Your task to perform on an android device: Search for sushi restaurants on Maps Image 0: 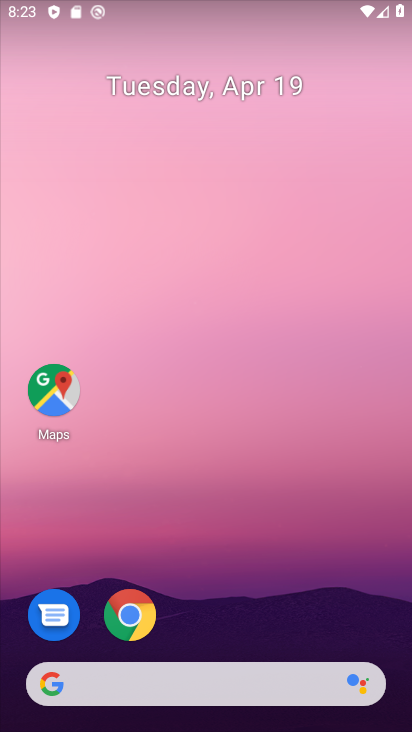
Step 0: click (33, 409)
Your task to perform on an android device: Search for sushi restaurants on Maps Image 1: 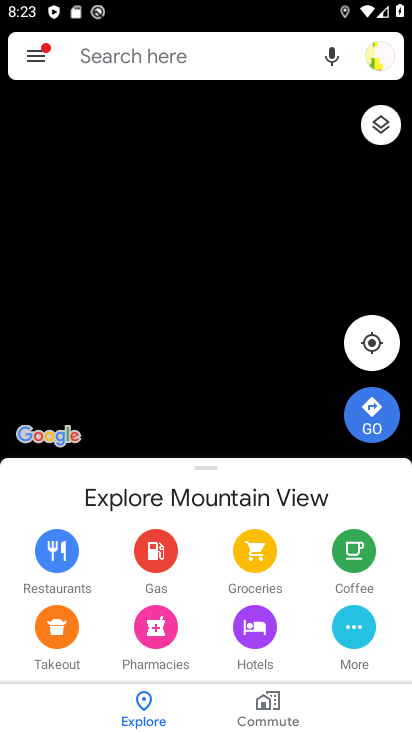
Step 1: click (161, 52)
Your task to perform on an android device: Search for sushi restaurants on Maps Image 2: 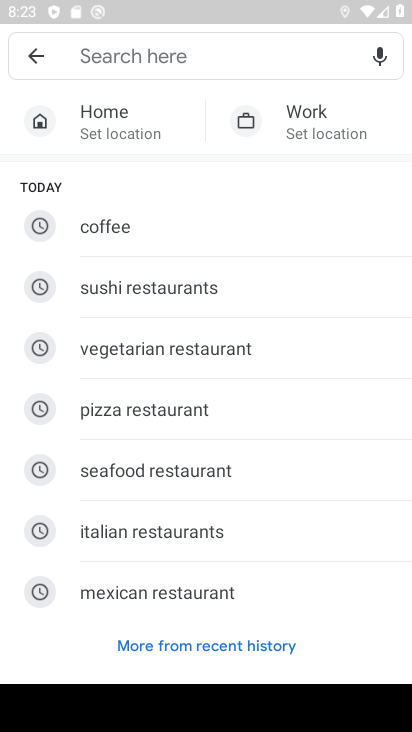
Step 2: type "sushi restaurants"
Your task to perform on an android device: Search for sushi restaurants on Maps Image 3: 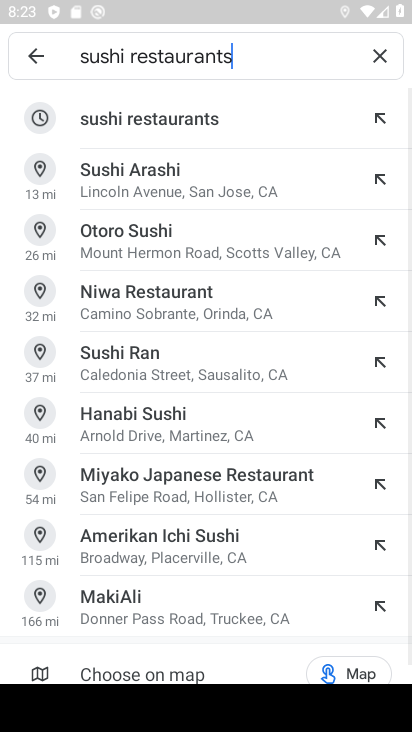
Step 3: click (195, 121)
Your task to perform on an android device: Search for sushi restaurants on Maps Image 4: 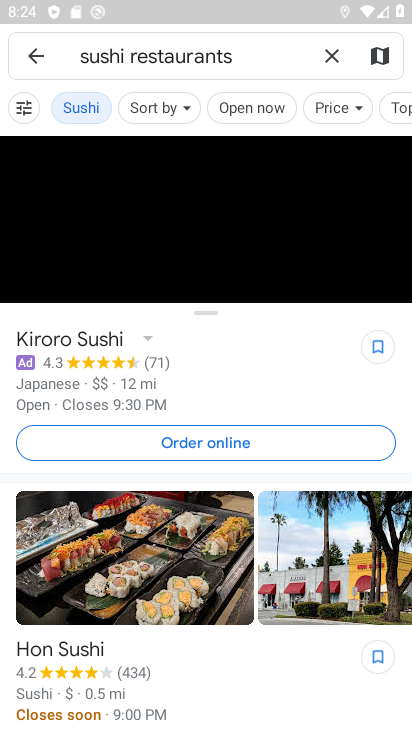
Step 4: task complete